Your task to perform on an android device: Search for Mexican restaurants on Maps Image 0: 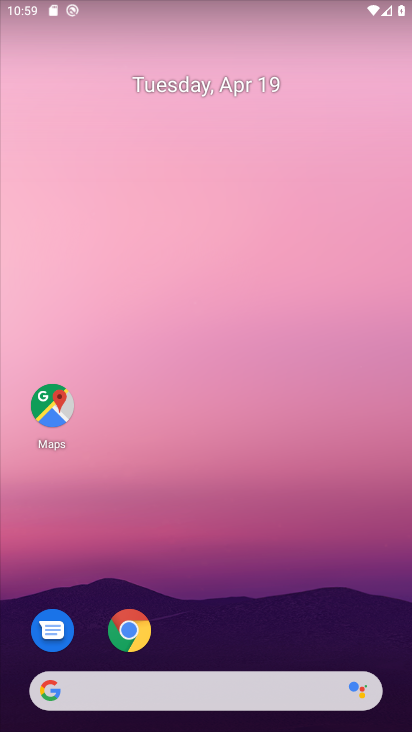
Step 0: click (47, 403)
Your task to perform on an android device: Search for Mexican restaurants on Maps Image 1: 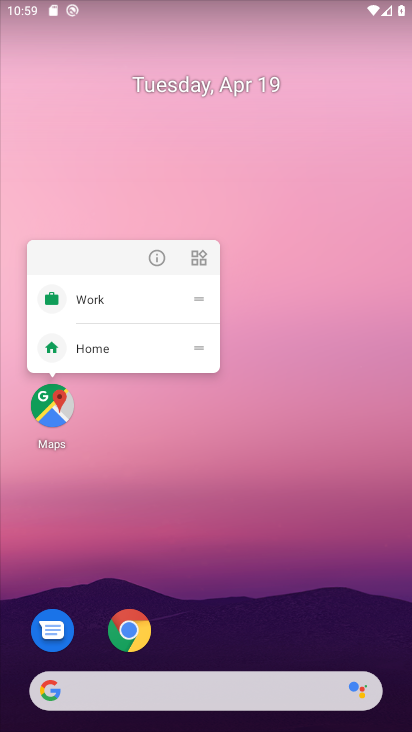
Step 1: click (47, 403)
Your task to perform on an android device: Search for Mexican restaurants on Maps Image 2: 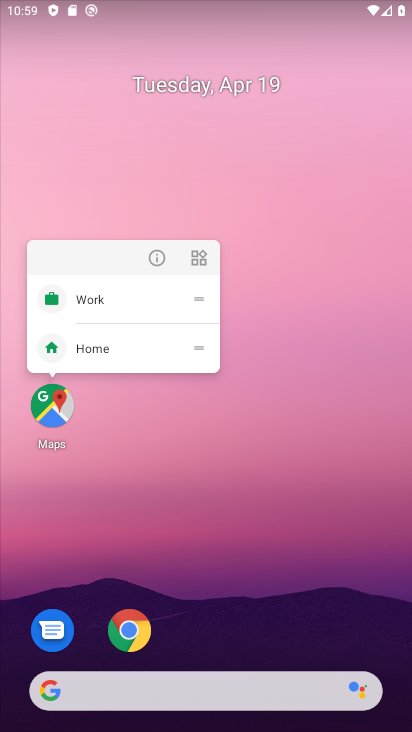
Step 2: click (64, 408)
Your task to perform on an android device: Search for Mexican restaurants on Maps Image 3: 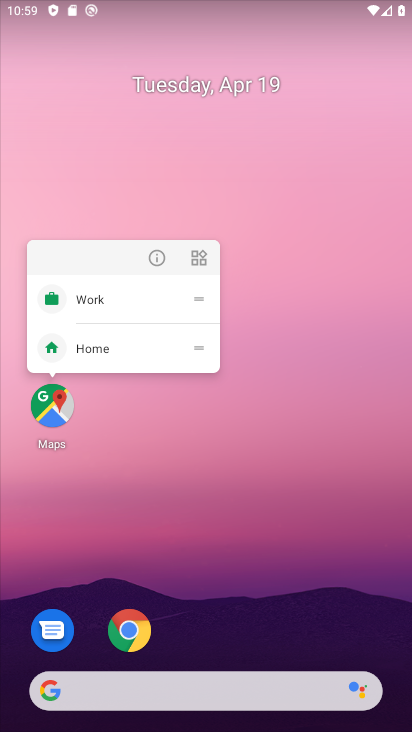
Step 3: click (52, 399)
Your task to perform on an android device: Search for Mexican restaurants on Maps Image 4: 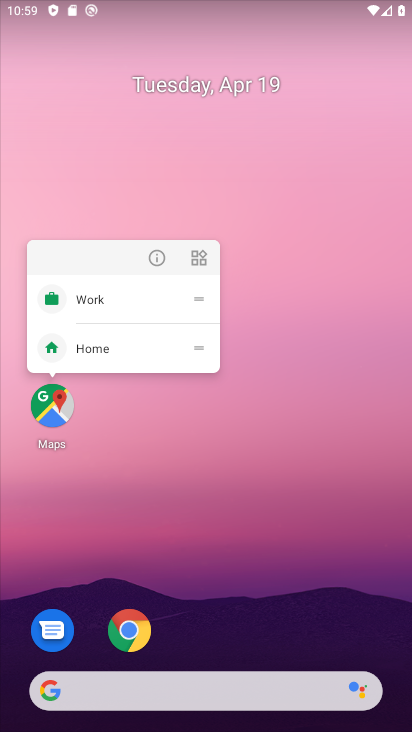
Step 4: click (52, 399)
Your task to perform on an android device: Search for Mexican restaurants on Maps Image 5: 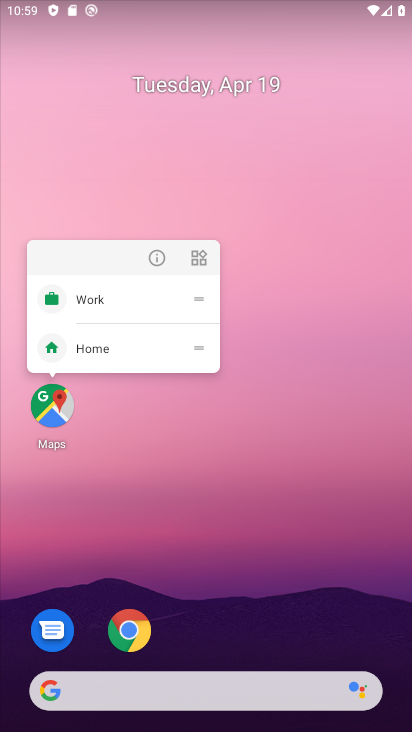
Step 5: click (52, 399)
Your task to perform on an android device: Search for Mexican restaurants on Maps Image 6: 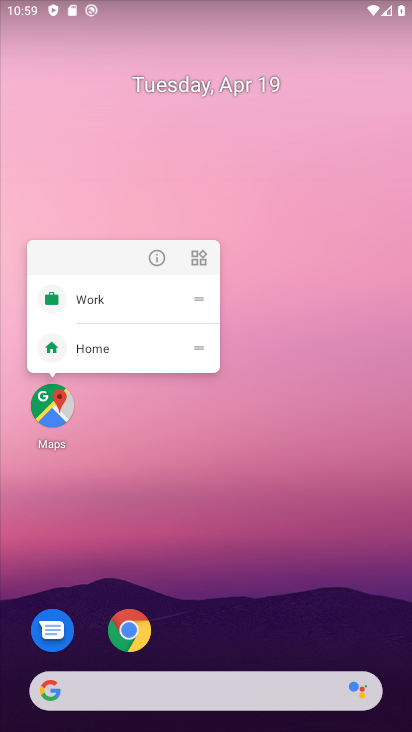
Step 6: click (52, 399)
Your task to perform on an android device: Search for Mexican restaurants on Maps Image 7: 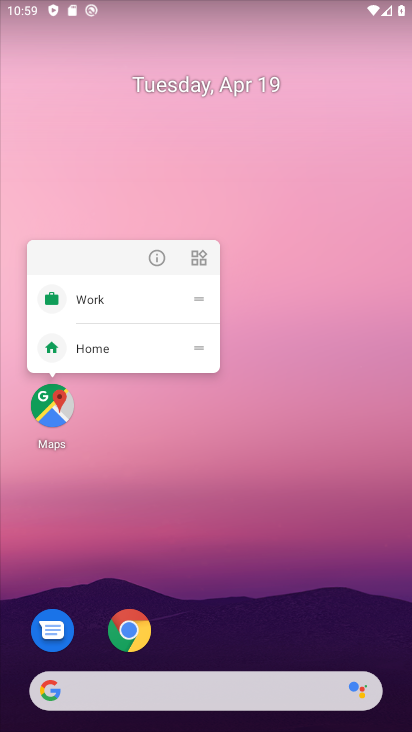
Step 7: click (52, 399)
Your task to perform on an android device: Search for Mexican restaurants on Maps Image 8: 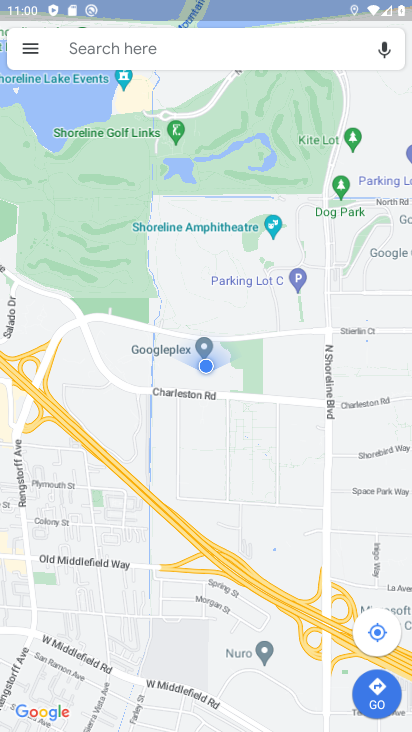
Step 8: click (319, 42)
Your task to perform on an android device: Search for Mexican restaurants on Maps Image 9: 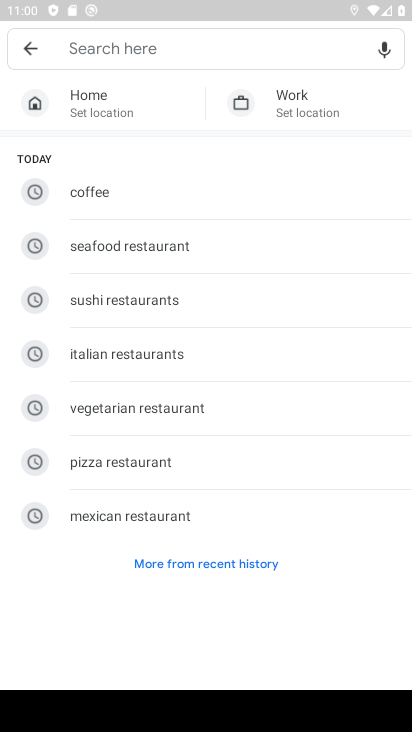
Step 9: click (274, 518)
Your task to perform on an android device: Search for Mexican restaurants on Maps Image 10: 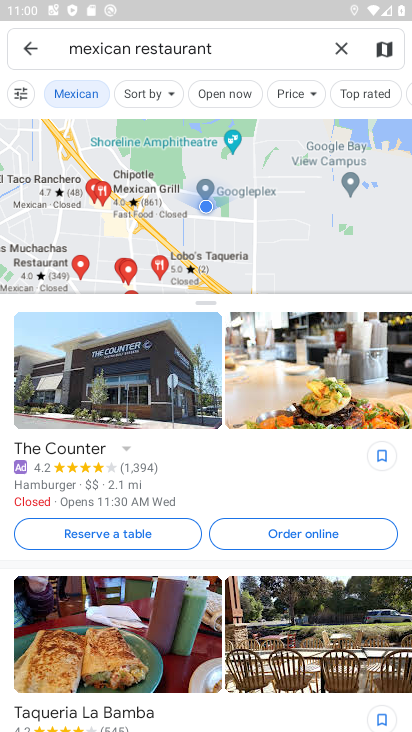
Step 10: task complete